Your task to perform on an android device: Open notification settings Image 0: 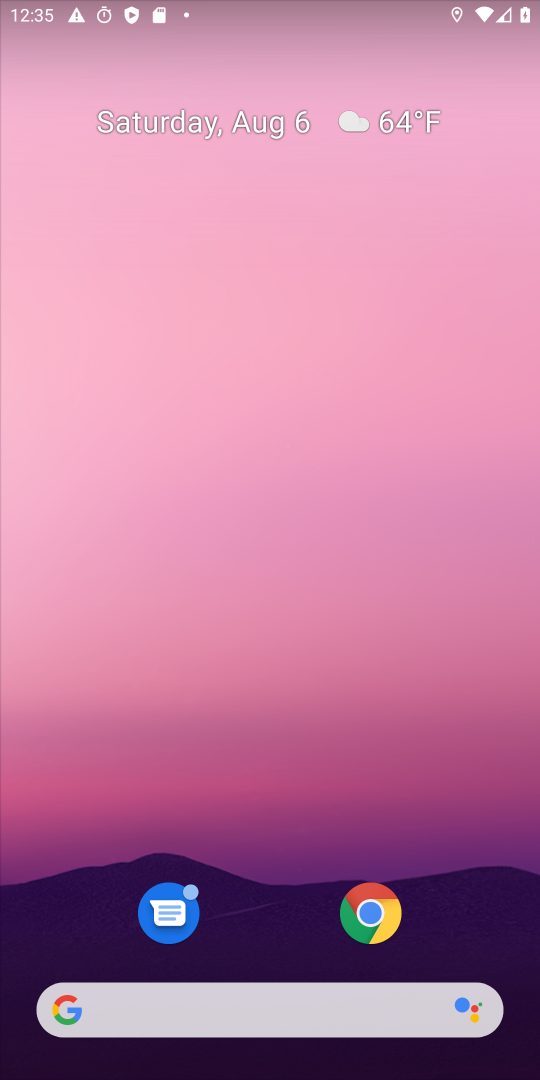
Step 0: press home button
Your task to perform on an android device: Open notification settings Image 1: 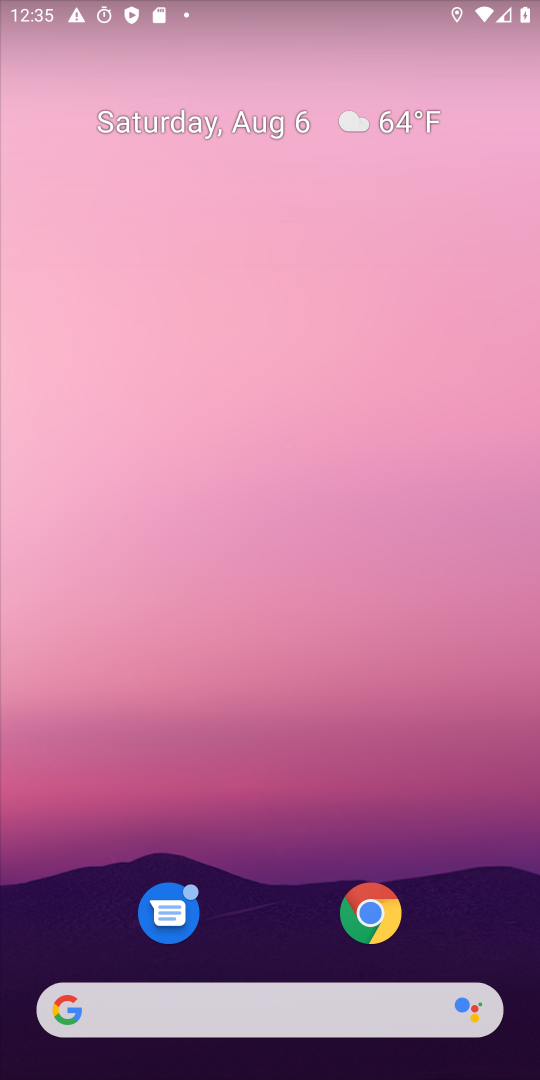
Step 1: drag from (470, 938) to (482, 360)
Your task to perform on an android device: Open notification settings Image 2: 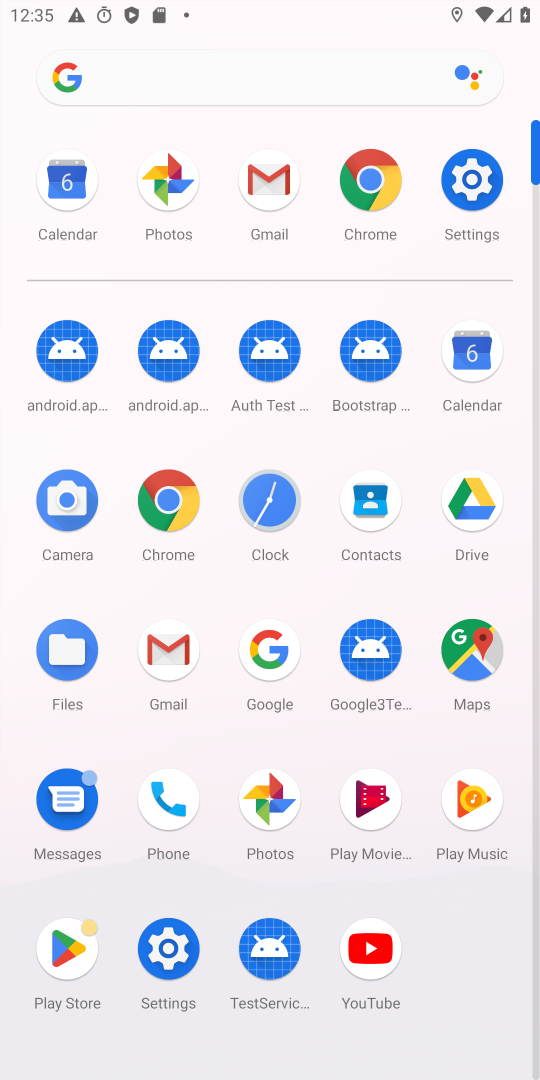
Step 2: click (470, 196)
Your task to perform on an android device: Open notification settings Image 3: 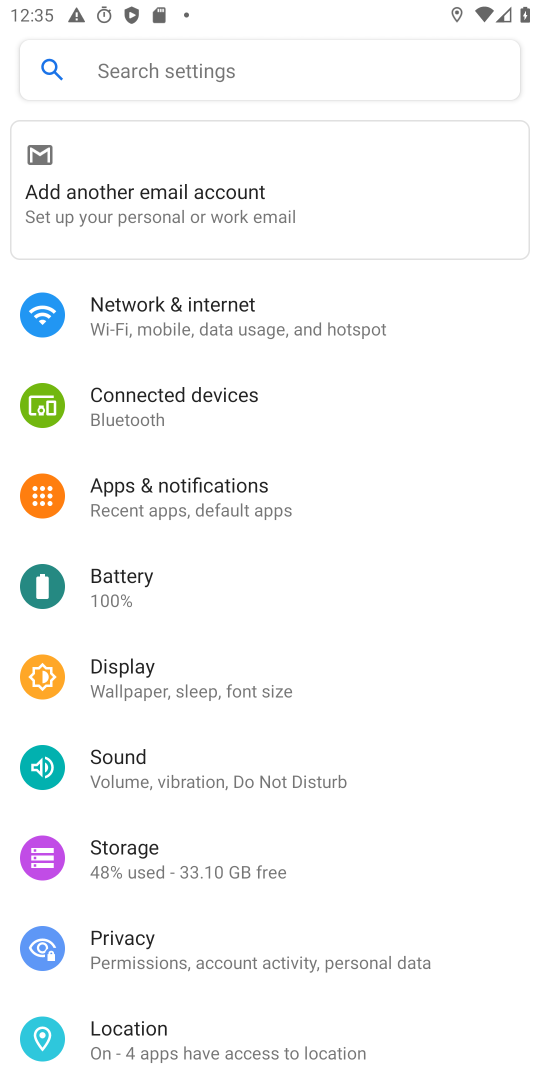
Step 3: drag from (457, 705) to (457, 475)
Your task to perform on an android device: Open notification settings Image 4: 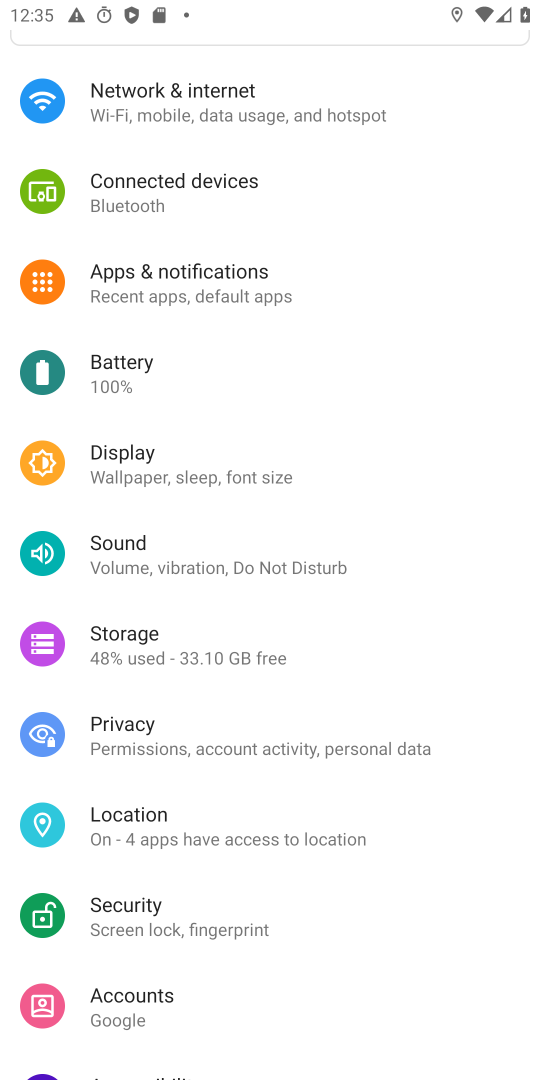
Step 4: drag from (465, 747) to (452, 533)
Your task to perform on an android device: Open notification settings Image 5: 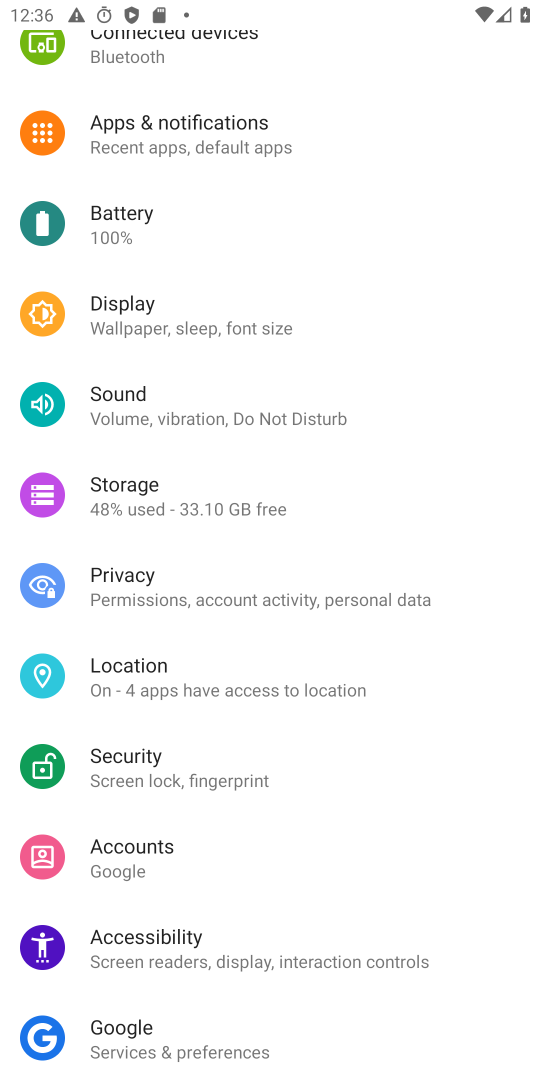
Step 5: drag from (445, 765) to (437, 563)
Your task to perform on an android device: Open notification settings Image 6: 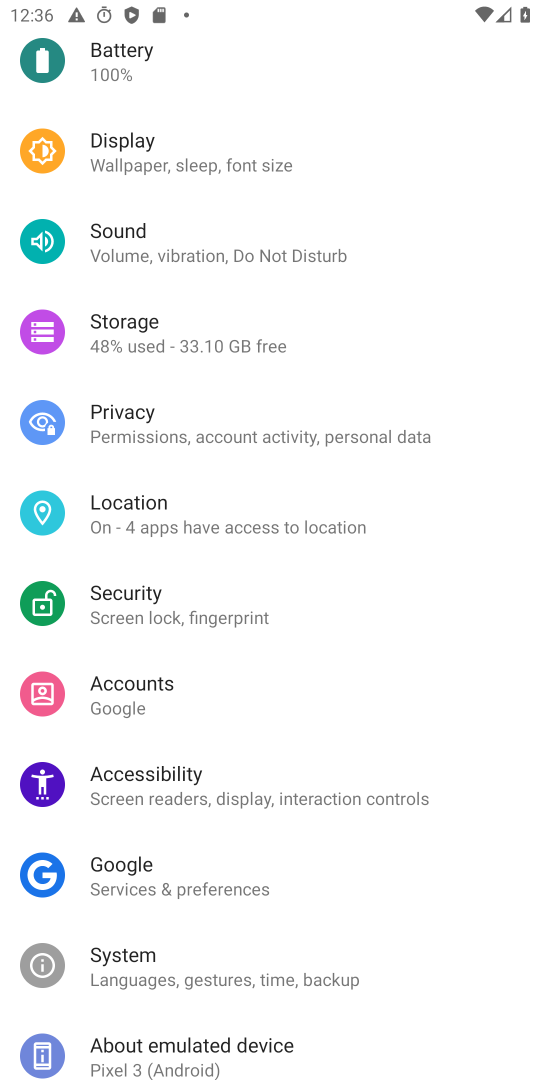
Step 6: drag from (425, 727) to (444, 566)
Your task to perform on an android device: Open notification settings Image 7: 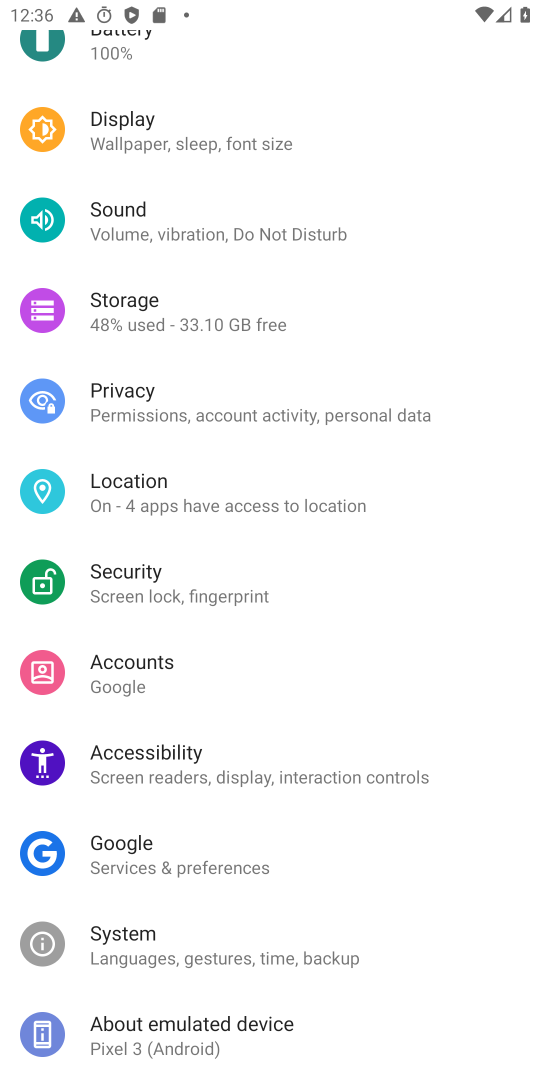
Step 7: drag from (428, 792) to (422, 503)
Your task to perform on an android device: Open notification settings Image 8: 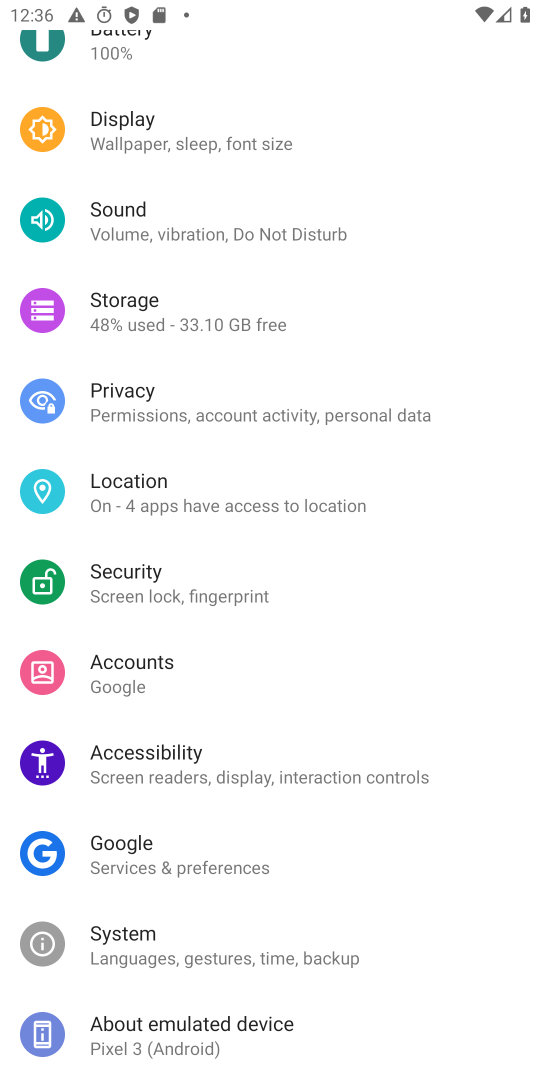
Step 8: drag from (461, 414) to (481, 619)
Your task to perform on an android device: Open notification settings Image 9: 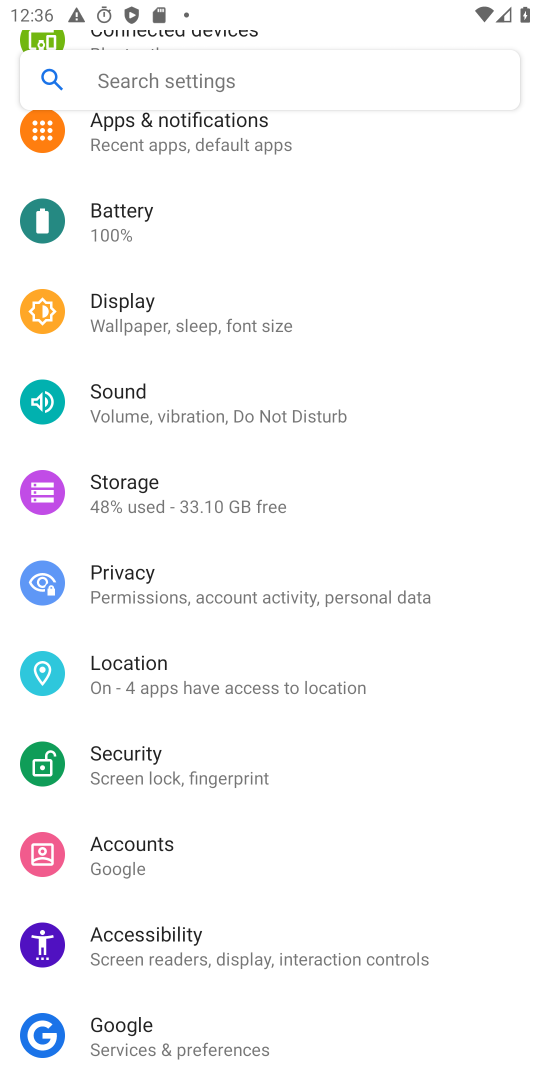
Step 9: drag from (460, 363) to (461, 540)
Your task to perform on an android device: Open notification settings Image 10: 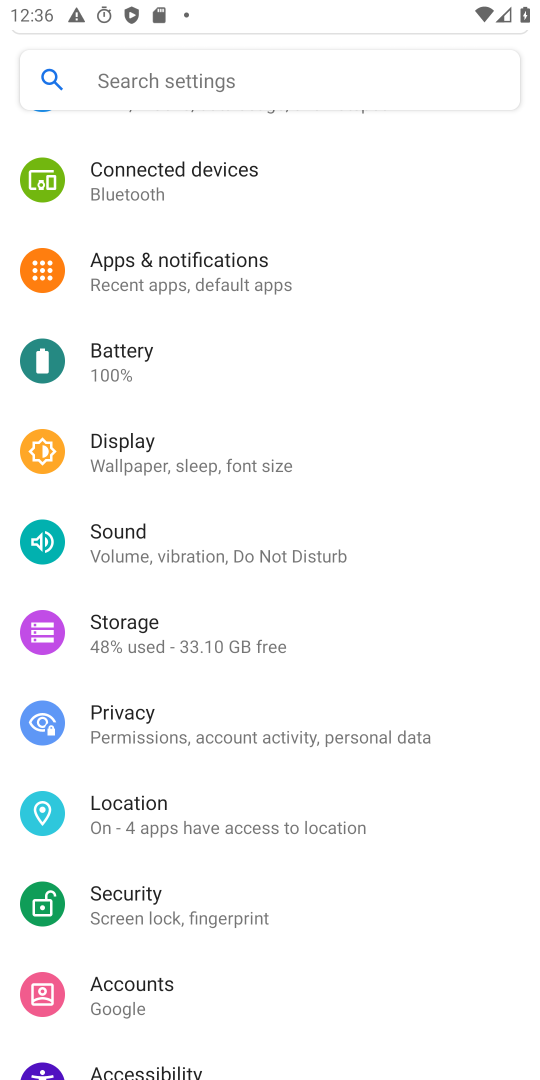
Step 10: drag from (439, 283) to (451, 477)
Your task to perform on an android device: Open notification settings Image 11: 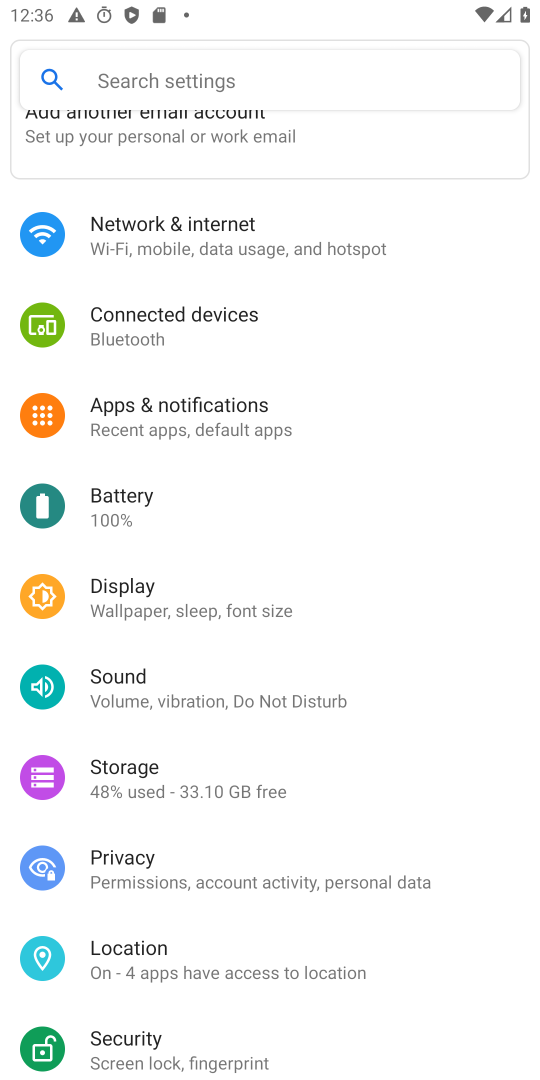
Step 11: drag from (447, 297) to (442, 477)
Your task to perform on an android device: Open notification settings Image 12: 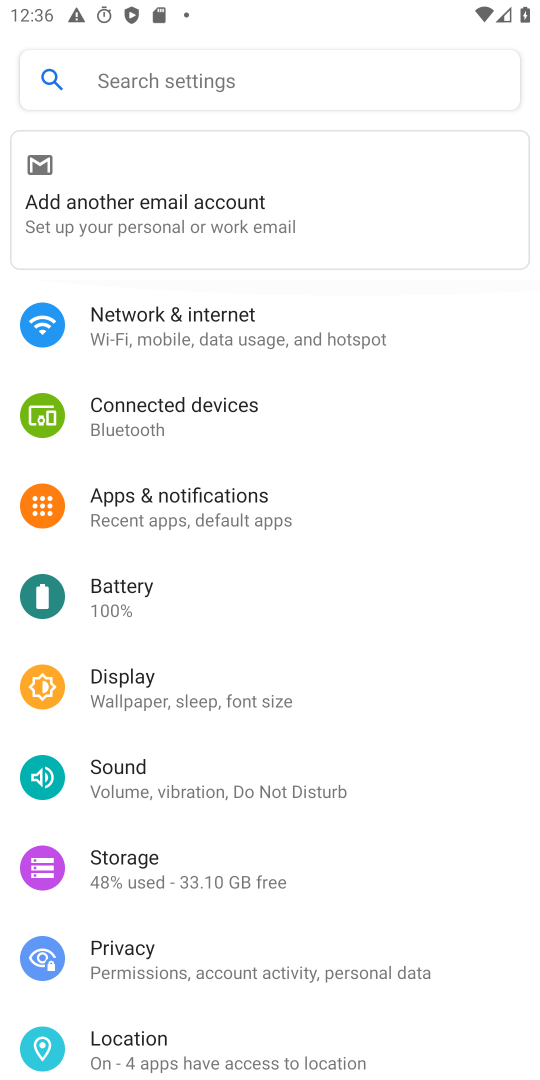
Step 12: drag from (452, 263) to (459, 490)
Your task to perform on an android device: Open notification settings Image 13: 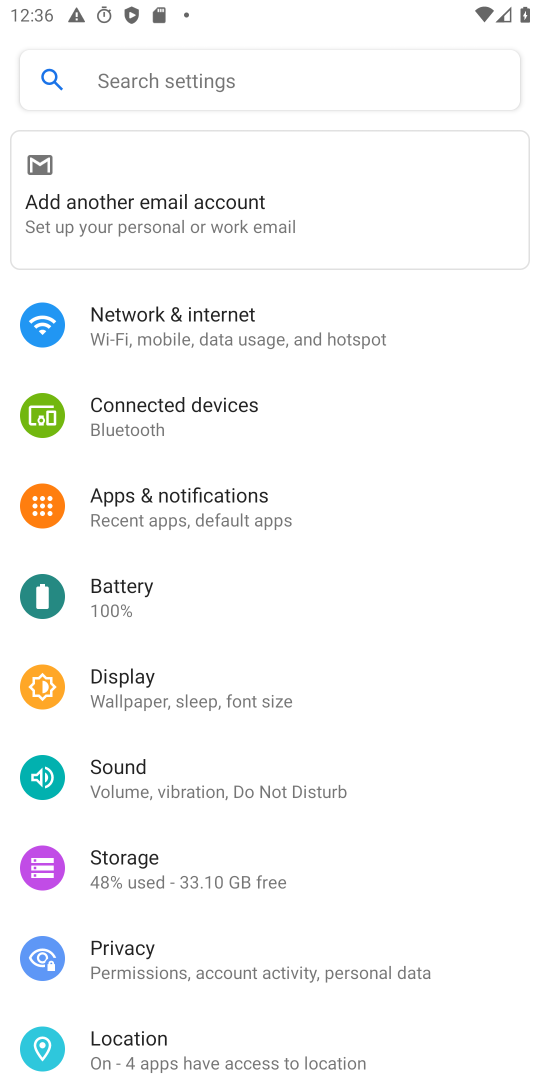
Step 13: click (276, 471)
Your task to perform on an android device: Open notification settings Image 14: 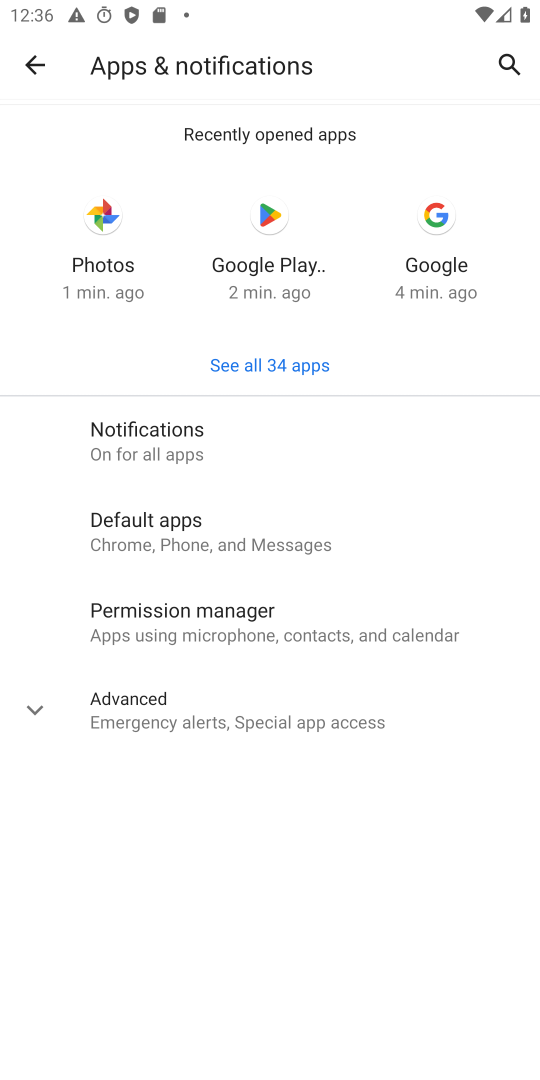
Step 14: click (155, 453)
Your task to perform on an android device: Open notification settings Image 15: 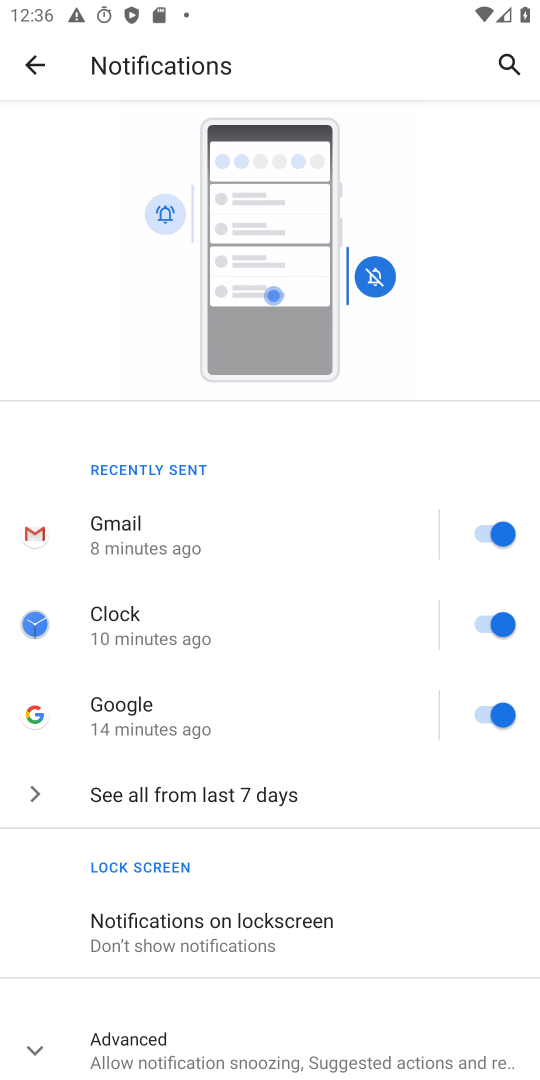
Step 15: task complete